Your task to perform on an android device: Open my contact list Image 0: 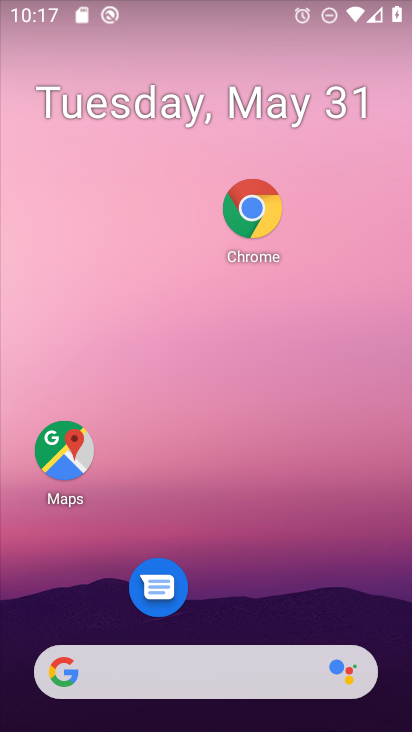
Step 0: press home button
Your task to perform on an android device: Open my contact list Image 1: 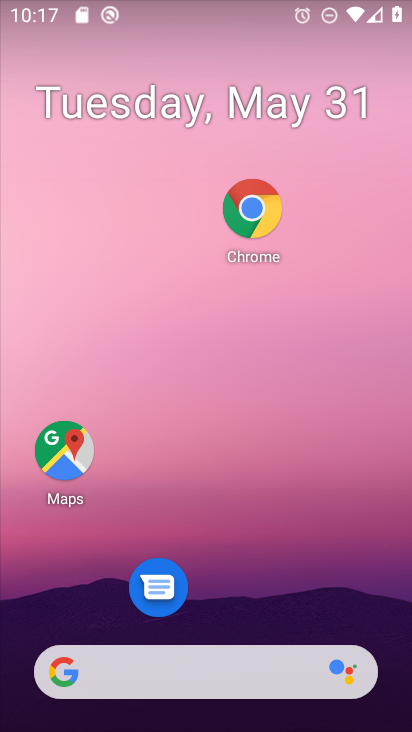
Step 1: drag from (214, 619) to (208, 85)
Your task to perform on an android device: Open my contact list Image 2: 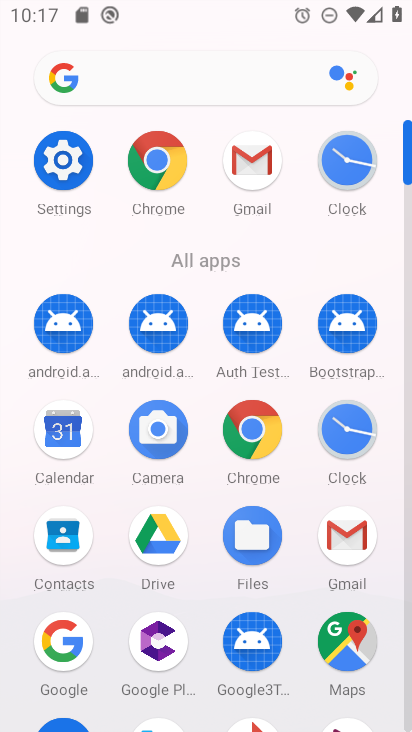
Step 2: click (57, 526)
Your task to perform on an android device: Open my contact list Image 3: 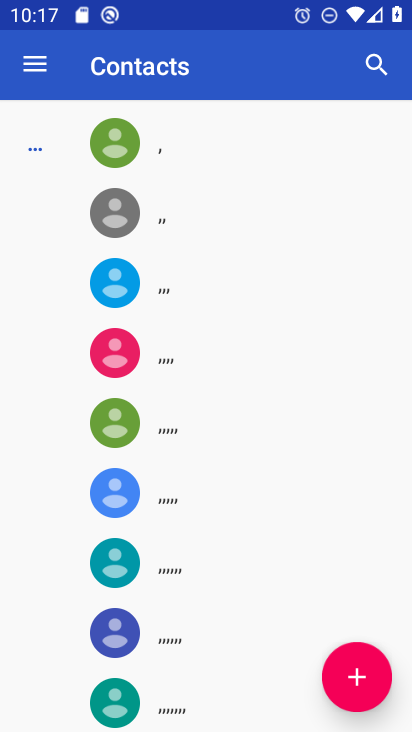
Step 3: task complete